Your task to perform on an android device: Search for a custom made wallet Image 0: 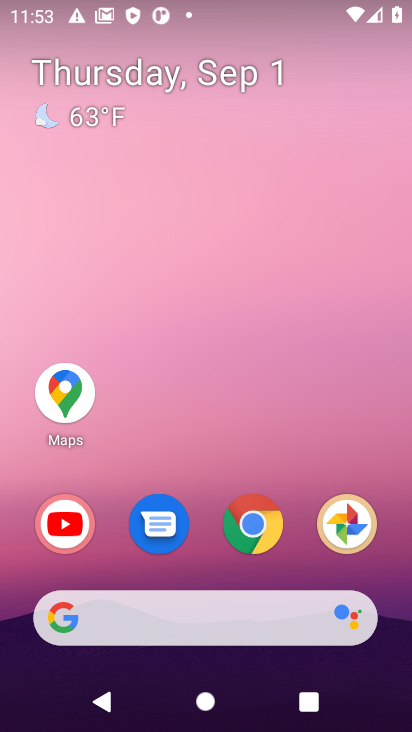
Step 0: click (249, 534)
Your task to perform on an android device: Search for a custom made wallet Image 1: 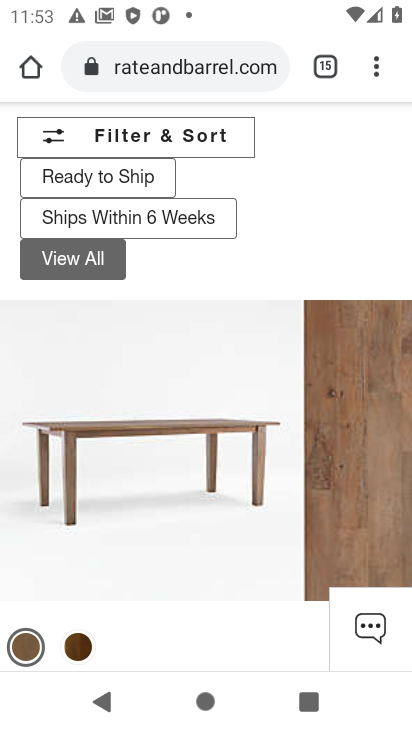
Step 1: click (320, 69)
Your task to perform on an android device: Search for a custom made wallet Image 2: 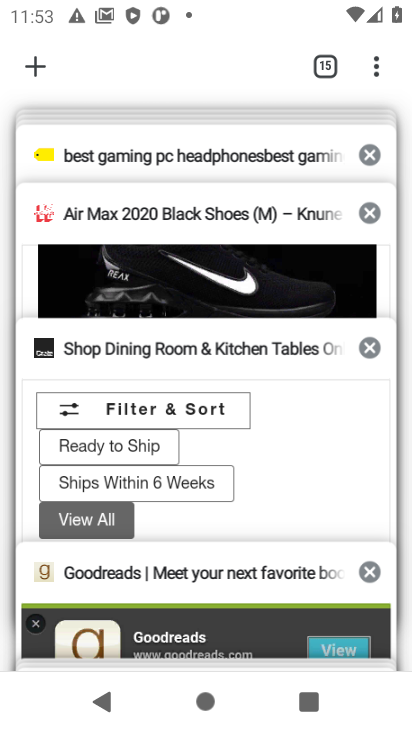
Step 2: click (36, 59)
Your task to perform on an android device: Search for a custom made wallet Image 3: 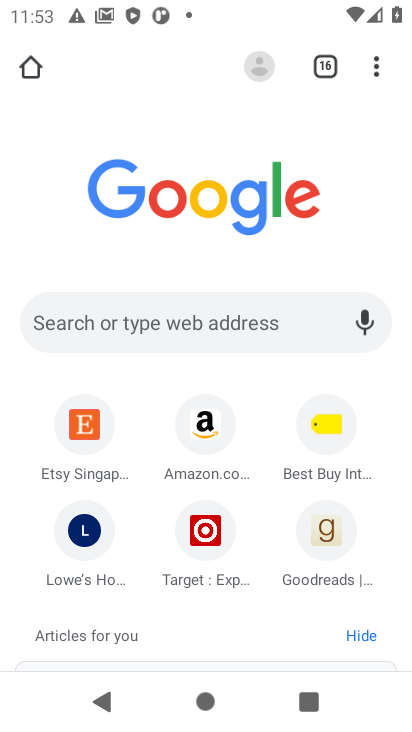
Step 3: click (254, 319)
Your task to perform on an android device: Search for a custom made wallet Image 4: 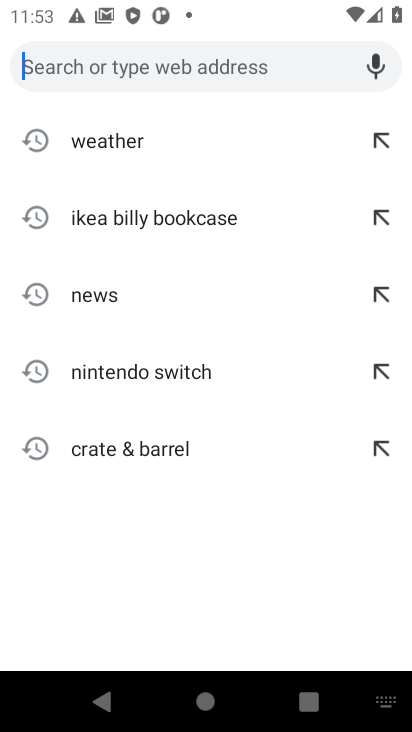
Step 4: type "custom made wallet"
Your task to perform on an android device: Search for a custom made wallet Image 5: 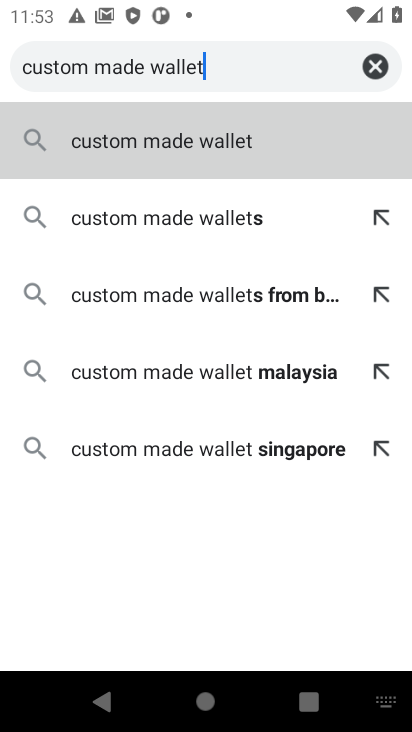
Step 5: click (234, 138)
Your task to perform on an android device: Search for a custom made wallet Image 6: 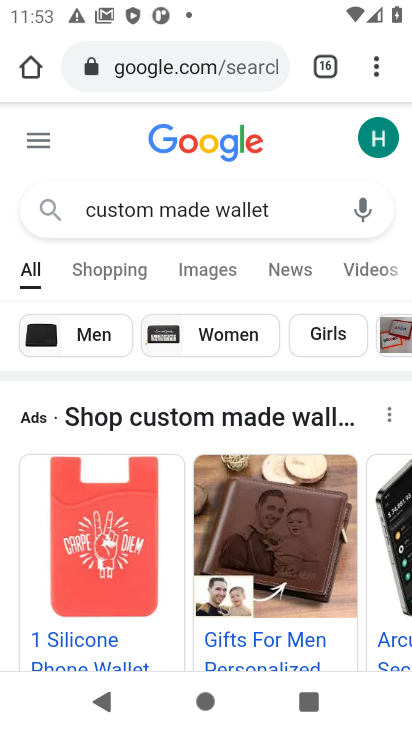
Step 6: task complete